Your task to perform on an android device: Go to sound settings Image 0: 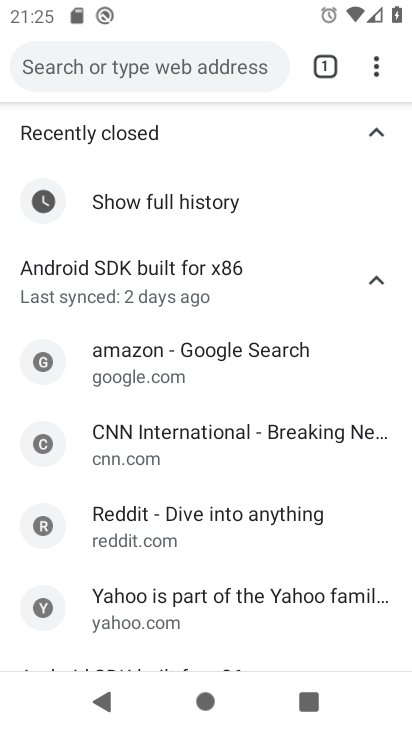
Step 0: press home button
Your task to perform on an android device: Go to sound settings Image 1: 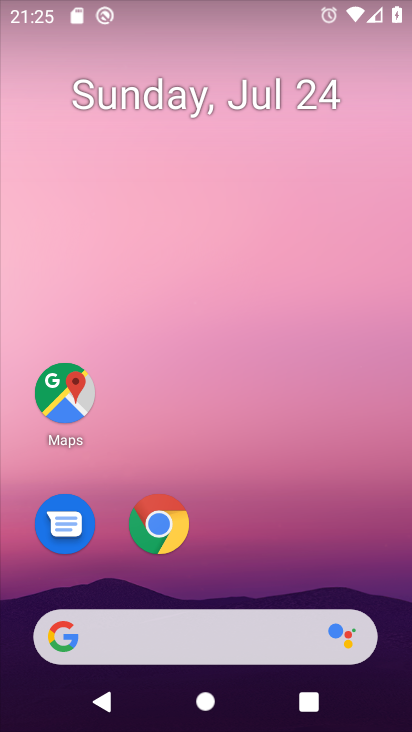
Step 1: drag from (300, 570) to (295, 18)
Your task to perform on an android device: Go to sound settings Image 2: 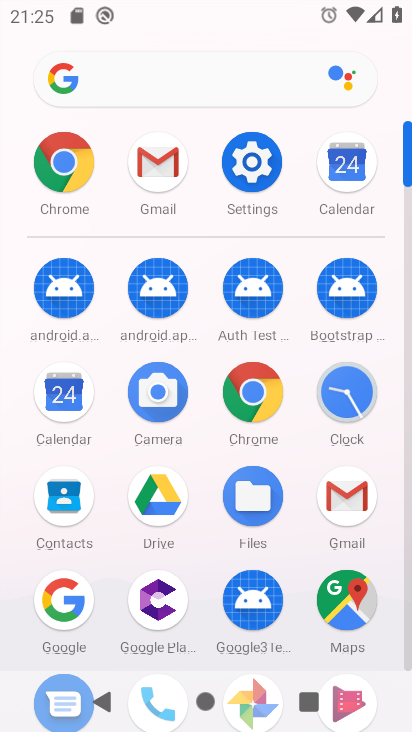
Step 2: click (257, 157)
Your task to perform on an android device: Go to sound settings Image 3: 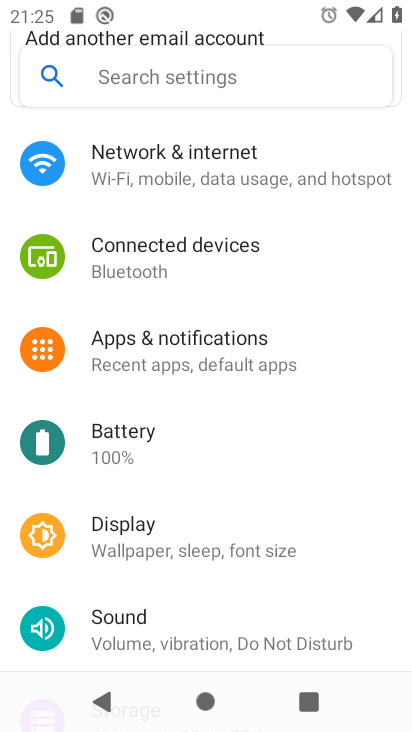
Step 3: drag from (232, 448) to (228, 243)
Your task to perform on an android device: Go to sound settings Image 4: 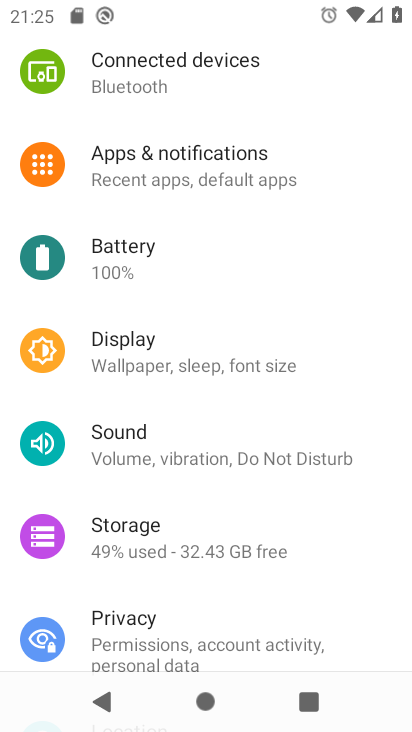
Step 4: click (220, 449)
Your task to perform on an android device: Go to sound settings Image 5: 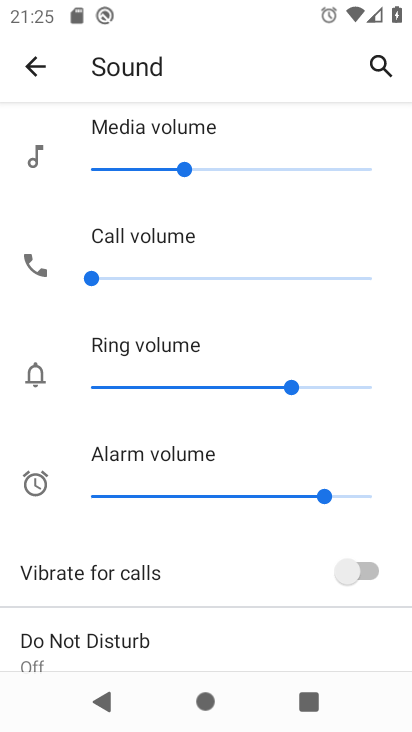
Step 5: task complete